Your task to perform on an android device: check storage Image 0: 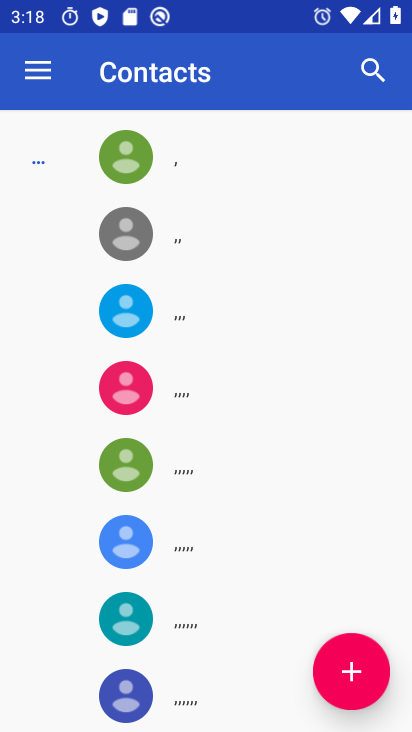
Step 0: press home button
Your task to perform on an android device: check storage Image 1: 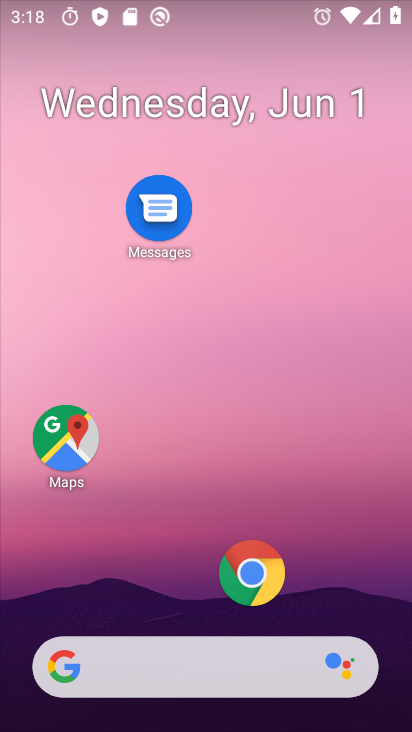
Step 1: drag from (180, 610) to (200, 241)
Your task to perform on an android device: check storage Image 2: 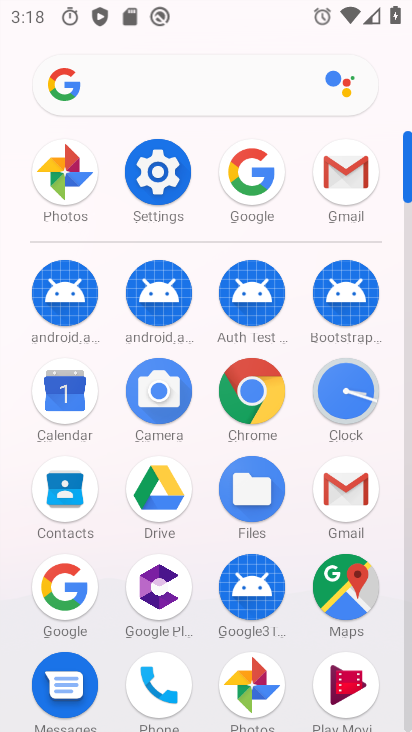
Step 2: click (134, 172)
Your task to perform on an android device: check storage Image 3: 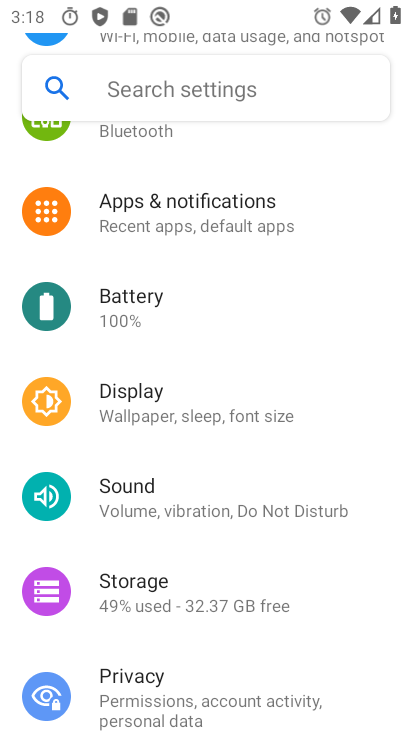
Step 3: drag from (211, 608) to (242, 383)
Your task to perform on an android device: check storage Image 4: 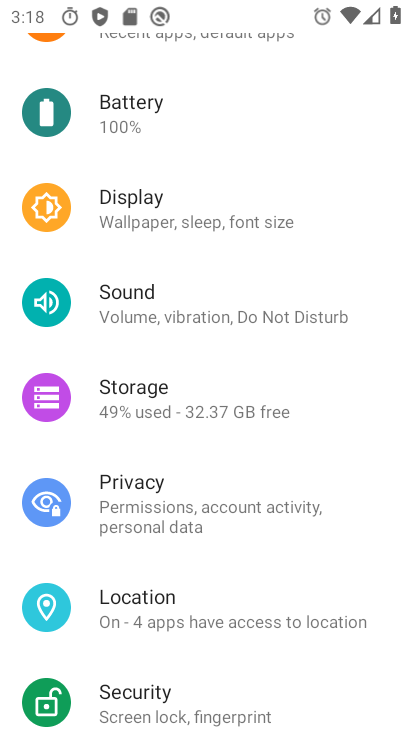
Step 4: click (167, 402)
Your task to perform on an android device: check storage Image 5: 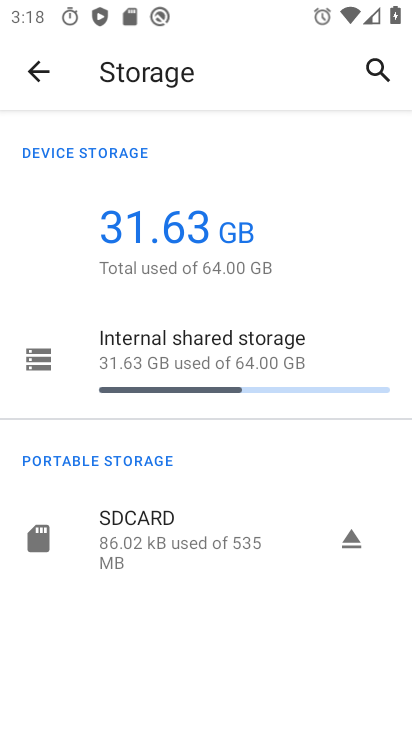
Step 5: task complete